Your task to perform on an android device: open chrome and create a bookmark for the current page Image 0: 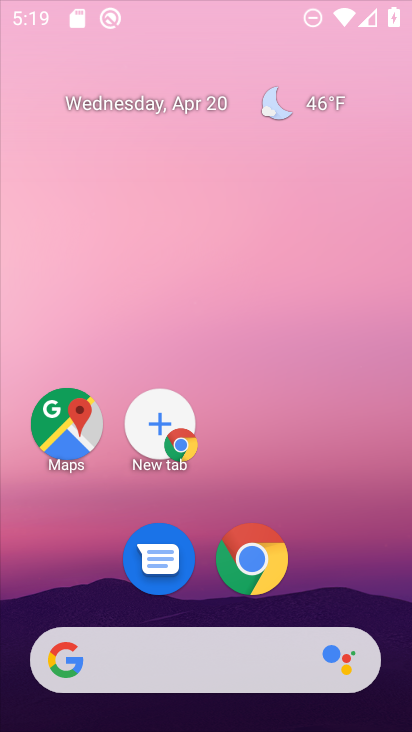
Step 0: click (259, 577)
Your task to perform on an android device: open chrome and create a bookmark for the current page Image 1: 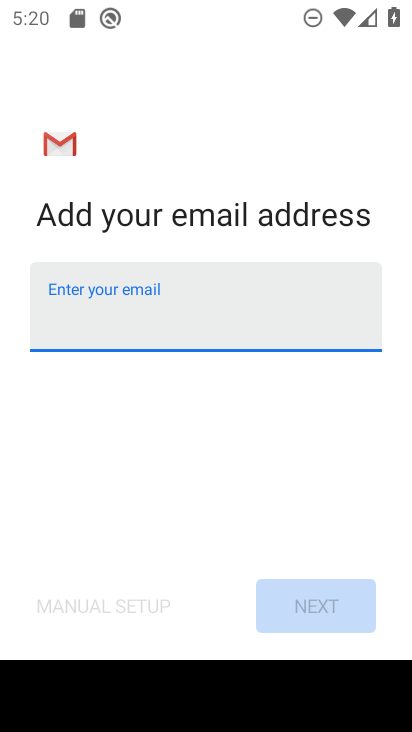
Step 1: press back button
Your task to perform on an android device: open chrome and create a bookmark for the current page Image 2: 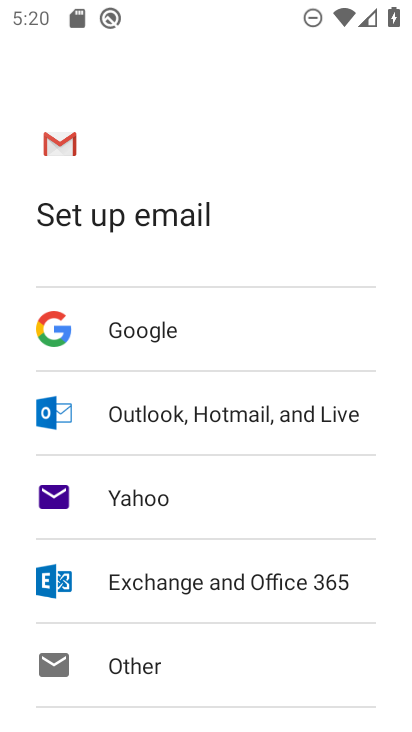
Step 2: press back button
Your task to perform on an android device: open chrome and create a bookmark for the current page Image 3: 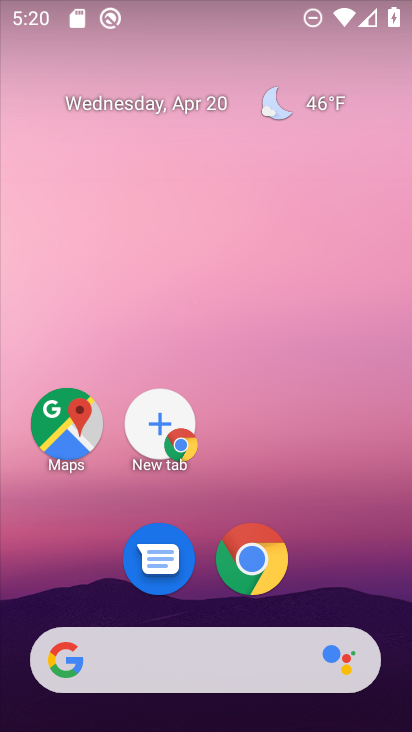
Step 3: click (271, 560)
Your task to perform on an android device: open chrome and create a bookmark for the current page Image 4: 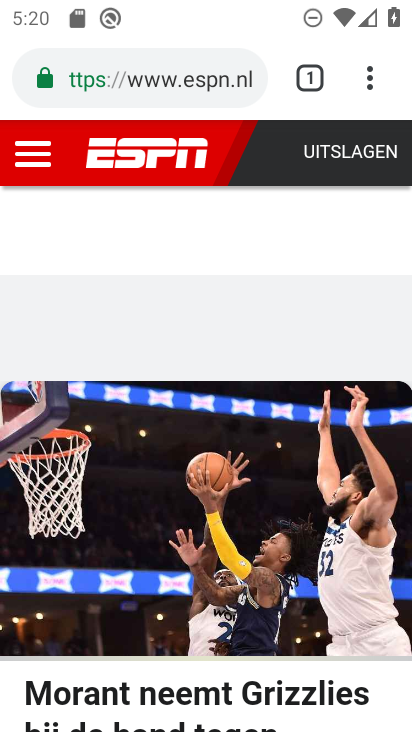
Step 4: click (370, 91)
Your task to perform on an android device: open chrome and create a bookmark for the current page Image 5: 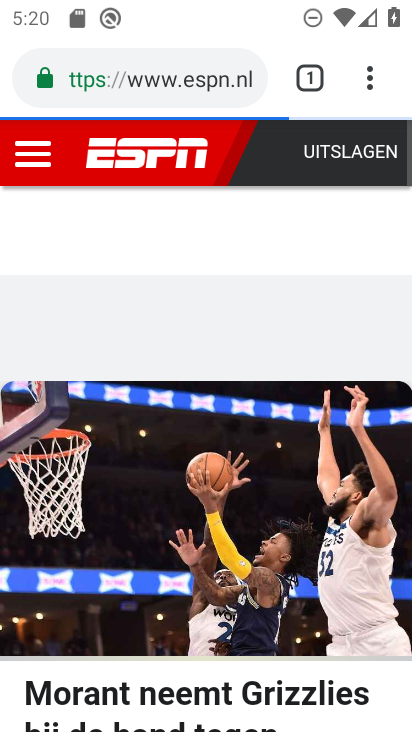
Step 5: click (355, 79)
Your task to perform on an android device: open chrome and create a bookmark for the current page Image 6: 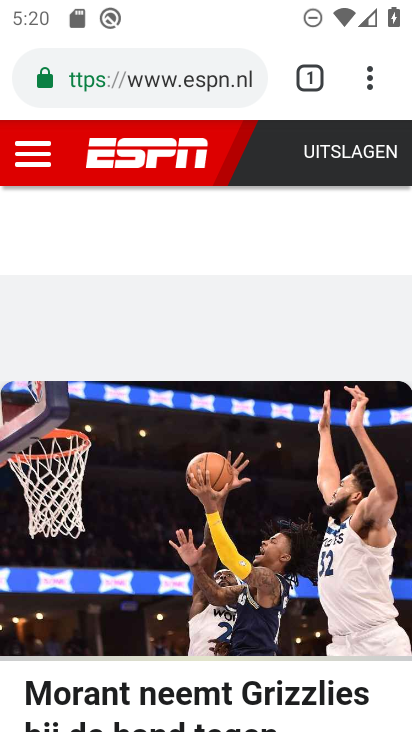
Step 6: click (374, 83)
Your task to perform on an android device: open chrome and create a bookmark for the current page Image 7: 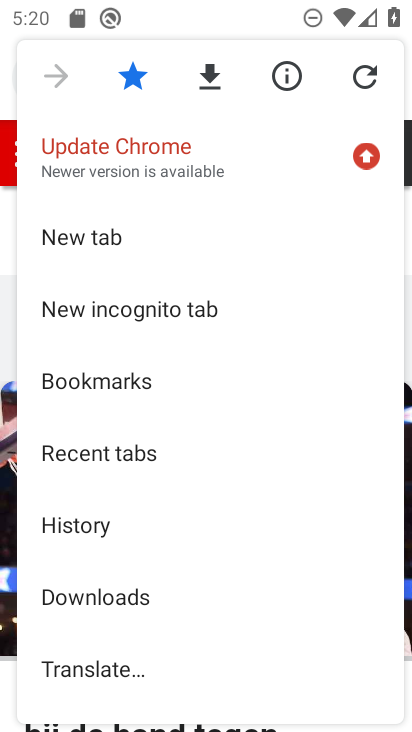
Step 7: task complete